Your task to perform on an android device: Open privacy settings Image 0: 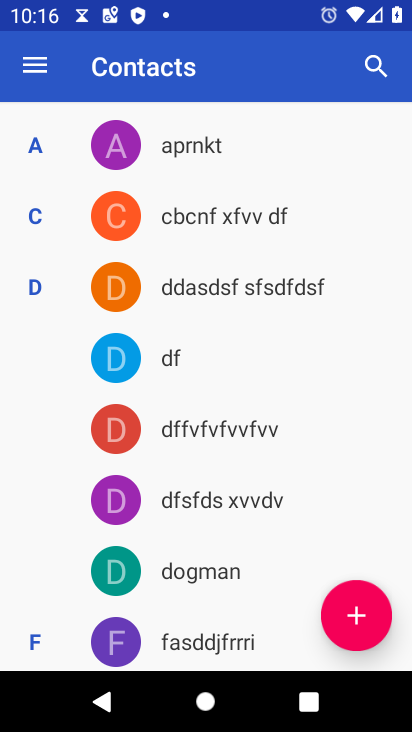
Step 0: press home button
Your task to perform on an android device: Open privacy settings Image 1: 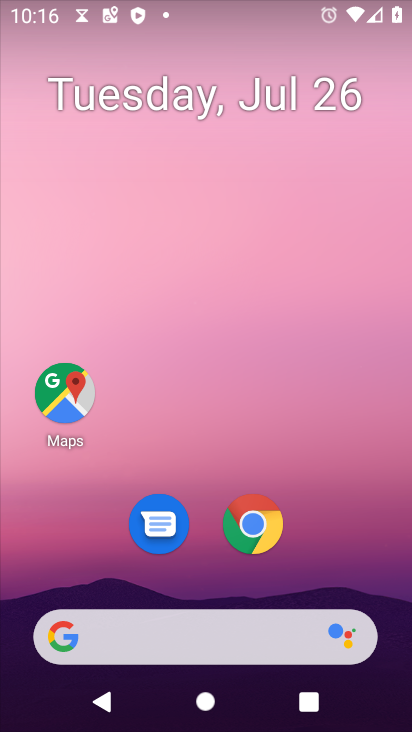
Step 1: drag from (198, 651) to (351, 120)
Your task to perform on an android device: Open privacy settings Image 2: 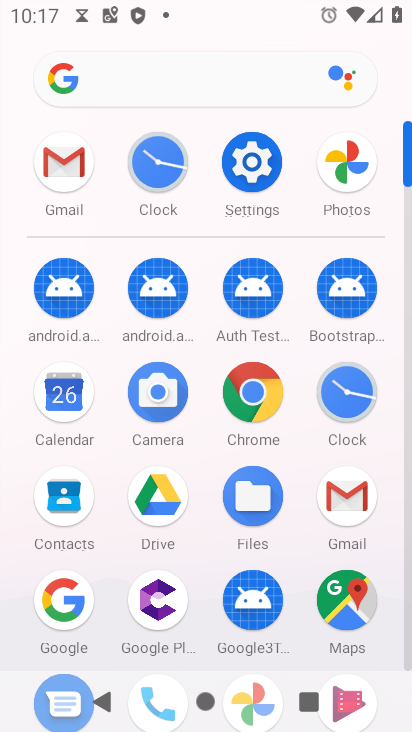
Step 2: click (262, 169)
Your task to perform on an android device: Open privacy settings Image 3: 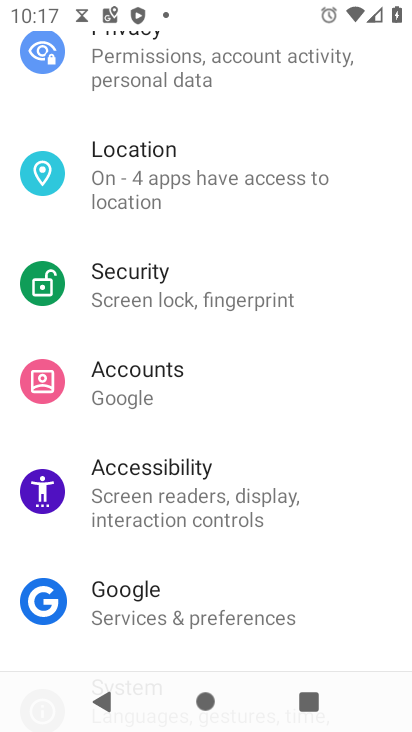
Step 3: drag from (347, 134) to (266, 552)
Your task to perform on an android device: Open privacy settings Image 4: 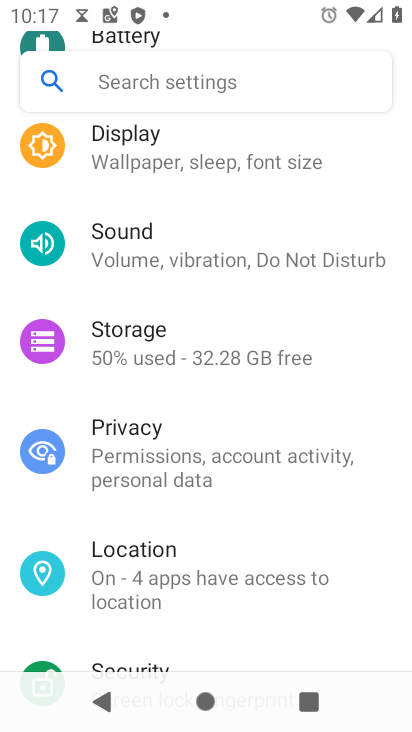
Step 4: click (146, 448)
Your task to perform on an android device: Open privacy settings Image 5: 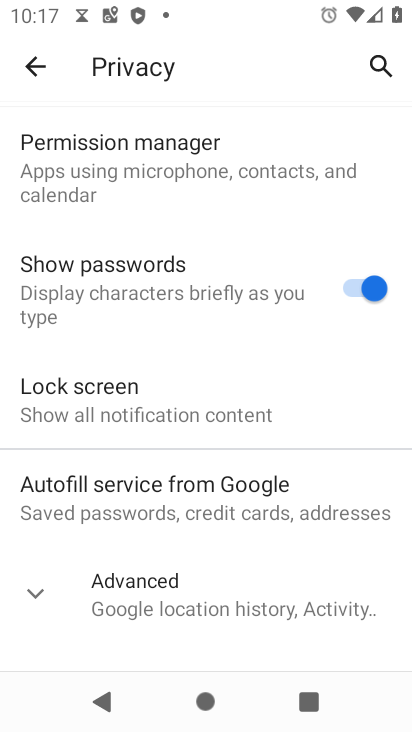
Step 5: task complete